Your task to perform on an android device: turn off javascript in the chrome app Image 0: 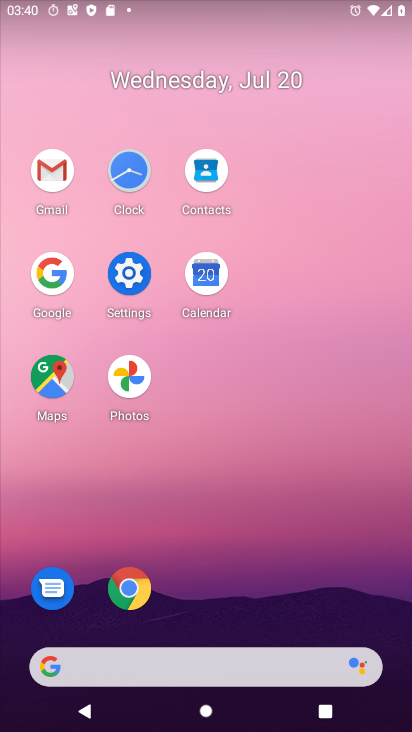
Step 0: click (139, 587)
Your task to perform on an android device: turn off javascript in the chrome app Image 1: 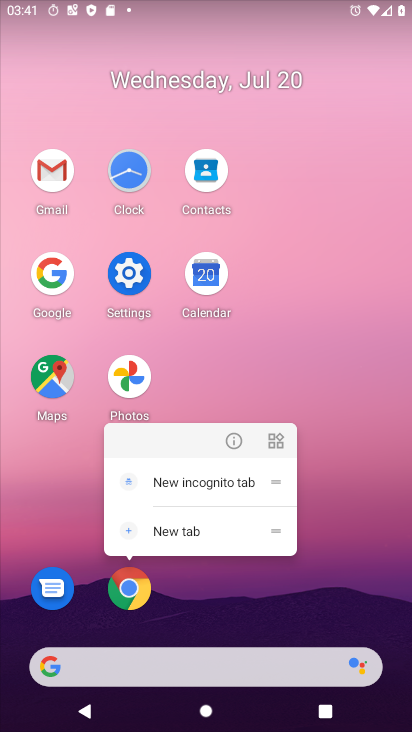
Step 1: click (140, 585)
Your task to perform on an android device: turn off javascript in the chrome app Image 2: 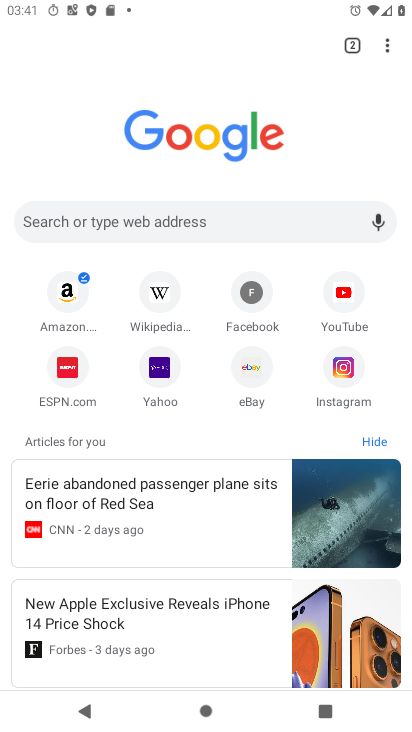
Step 2: click (388, 42)
Your task to perform on an android device: turn off javascript in the chrome app Image 3: 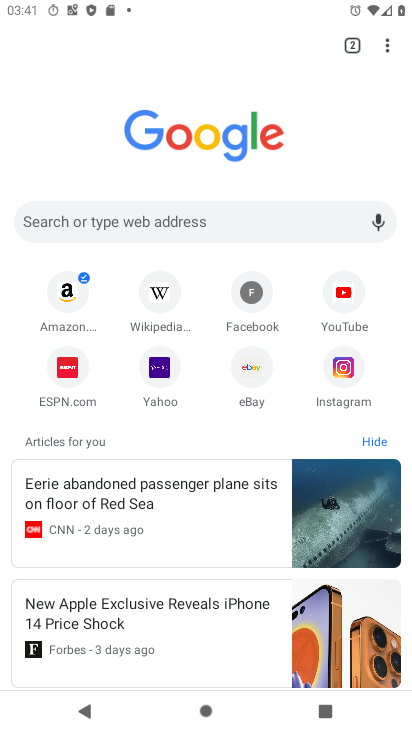
Step 3: click (381, 41)
Your task to perform on an android device: turn off javascript in the chrome app Image 4: 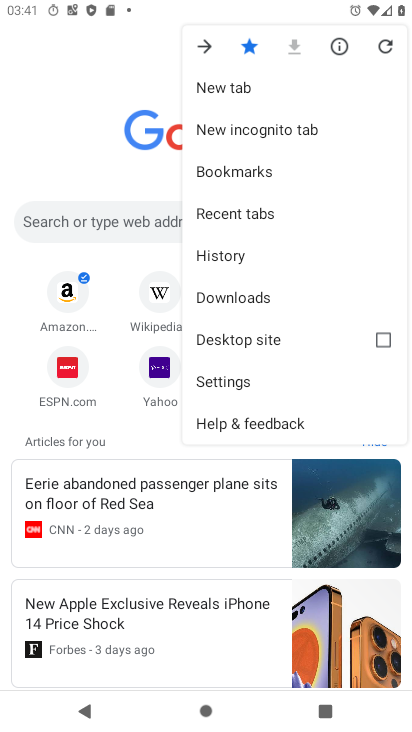
Step 4: click (240, 389)
Your task to perform on an android device: turn off javascript in the chrome app Image 5: 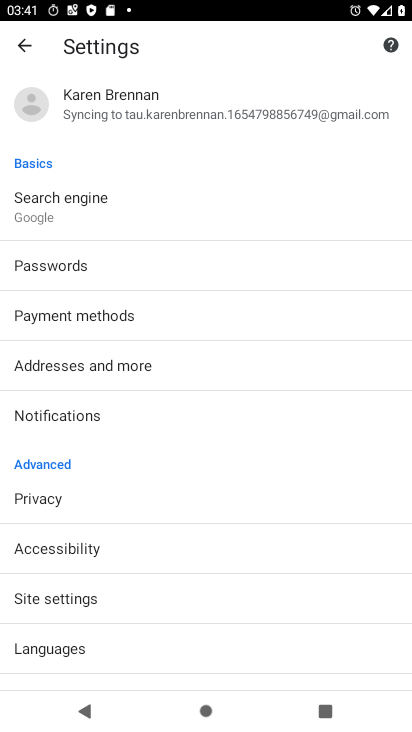
Step 5: click (148, 601)
Your task to perform on an android device: turn off javascript in the chrome app Image 6: 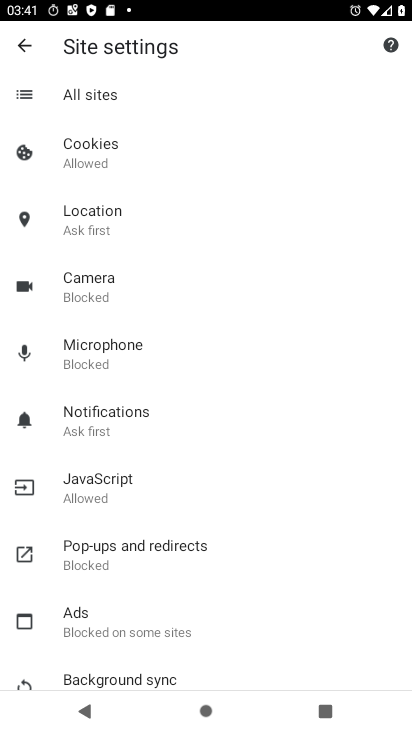
Step 6: click (166, 495)
Your task to perform on an android device: turn off javascript in the chrome app Image 7: 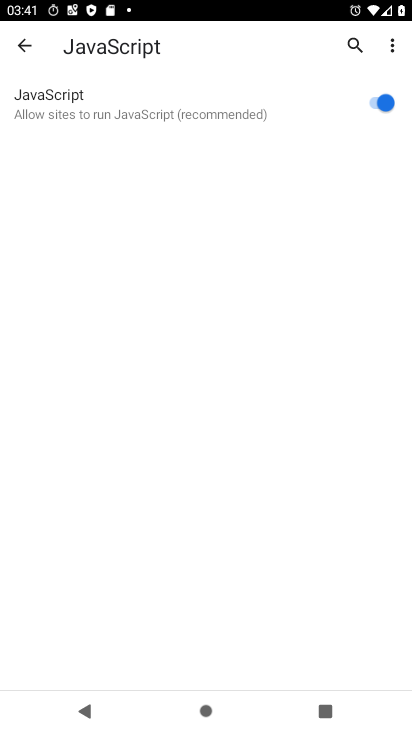
Step 7: task complete